Your task to perform on an android device: Check the news Image 0: 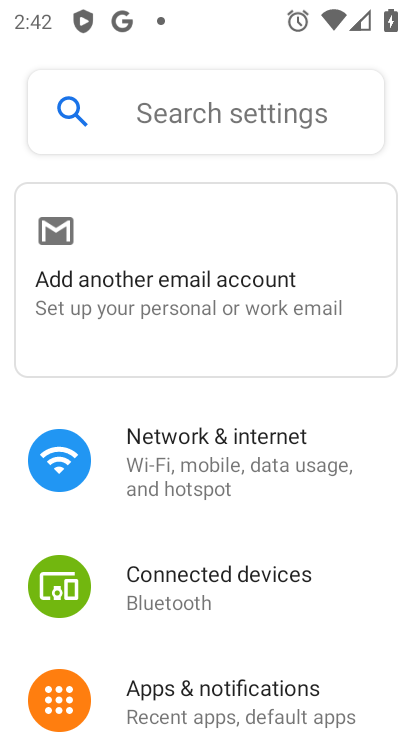
Step 0: press home button
Your task to perform on an android device: Check the news Image 1: 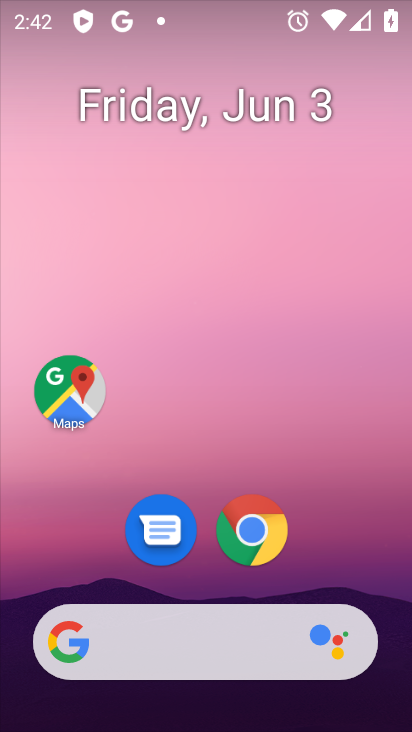
Step 1: click (170, 645)
Your task to perform on an android device: Check the news Image 2: 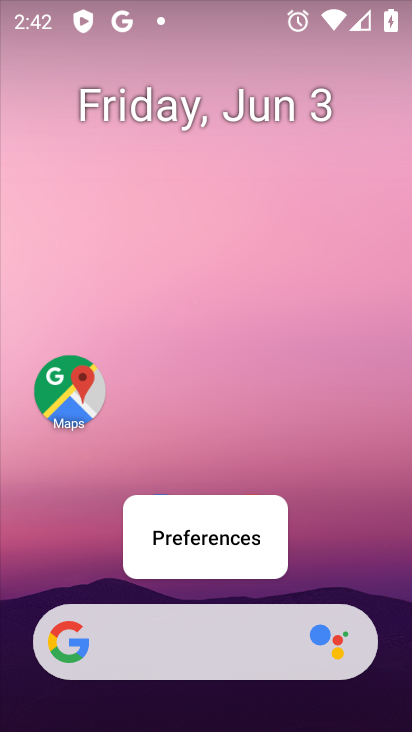
Step 2: press home button
Your task to perform on an android device: Check the news Image 3: 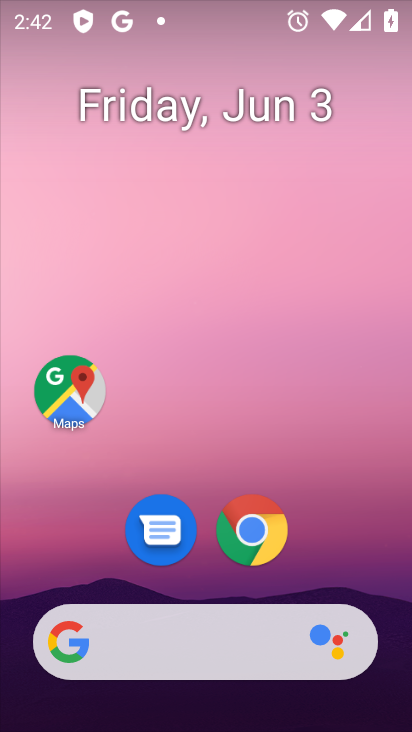
Step 3: click (161, 657)
Your task to perform on an android device: Check the news Image 4: 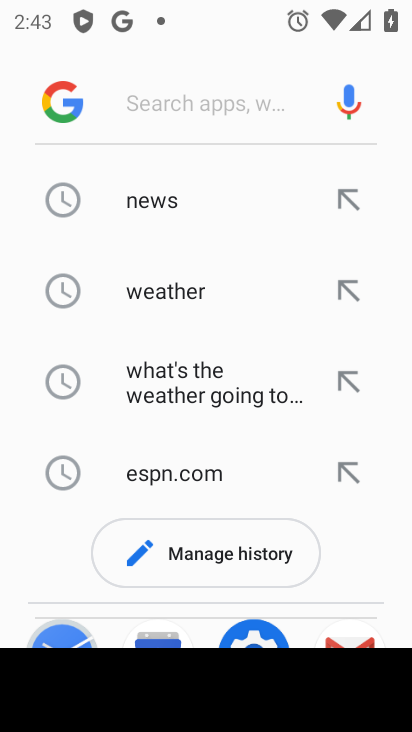
Step 4: click (160, 212)
Your task to perform on an android device: Check the news Image 5: 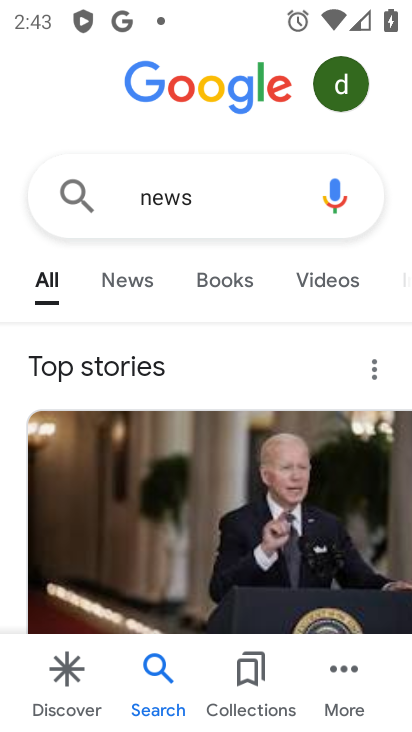
Step 5: task complete